Your task to perform on an android device: turn pop-ups off in chrome Image 0: 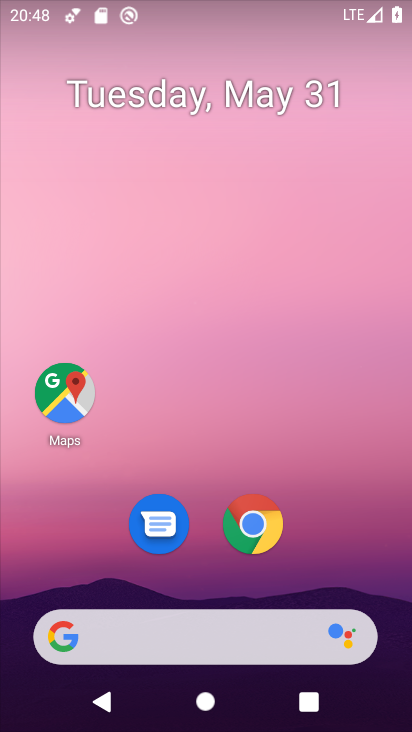
Step 0: click (263, 515)
Your task to perform on an android device: turn pop-ups off in chrome Image 1: 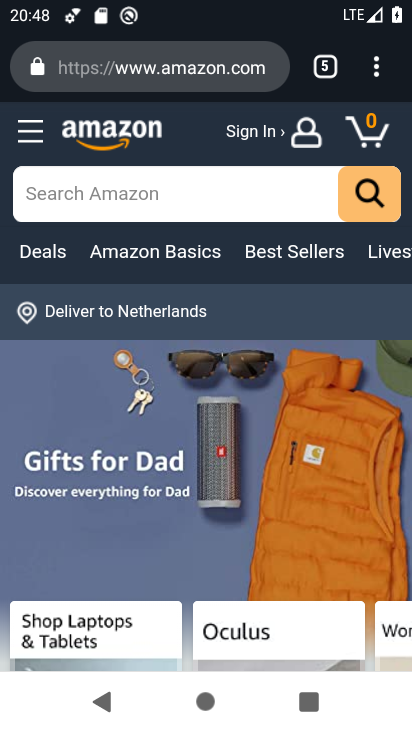
Step 1: click (373, 63)
Your task to perform on an android device: turn pop-ups off in chrome Image 2: 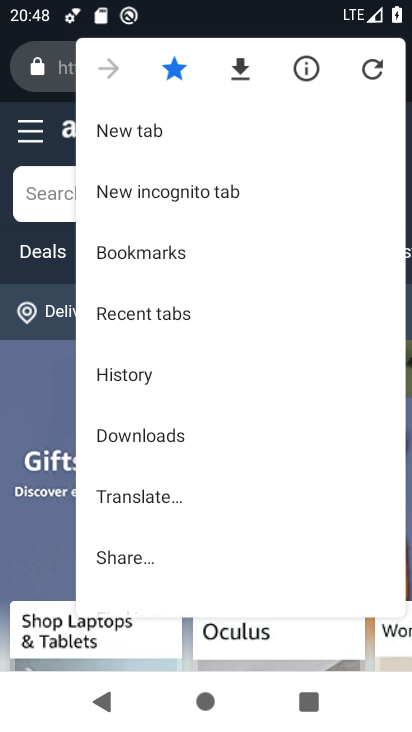
Step 2: drag from (234, 465) to (251, 113)
Your task to perform on an android device: turn pop-ups off in chrome Image 3: 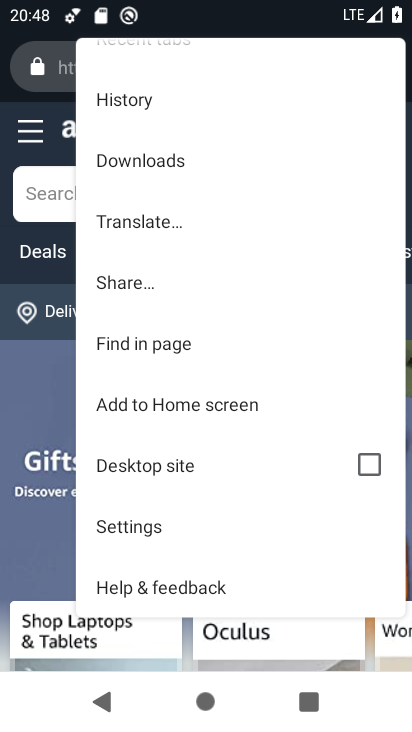
Step 3: click (185, 527)
Your task to perform on an android device: turn pop-ups off in chrome Image 4: 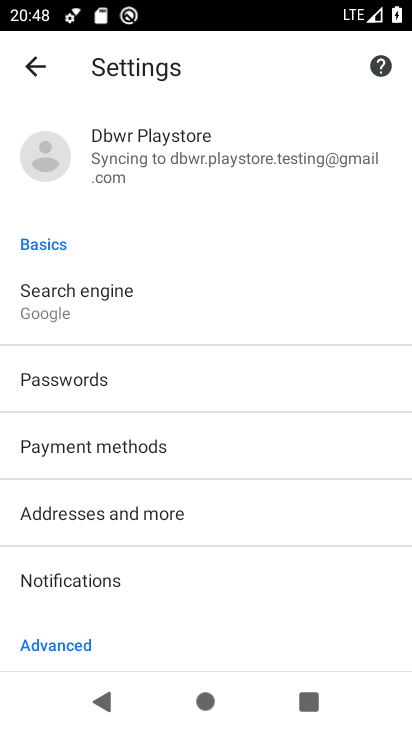
Step 4: drag from (267, 531) to (280, 161)
Your task to perform on an android device: turn pop-ups off in chrome Image 5: 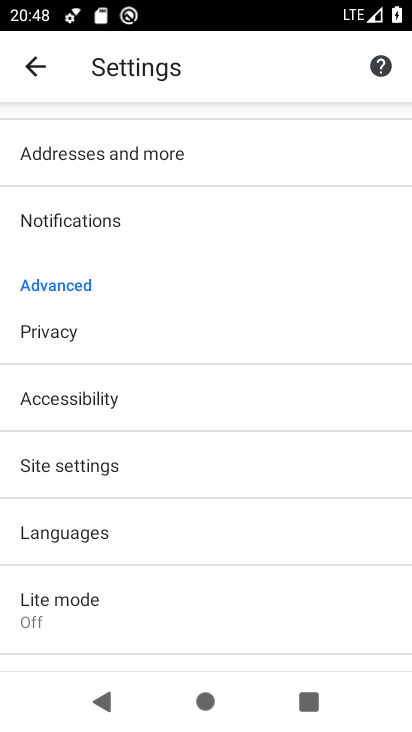
Step 5: click (208, 465)
Your task to perform on an android device: turn pop-ups off in chrome Image 6: 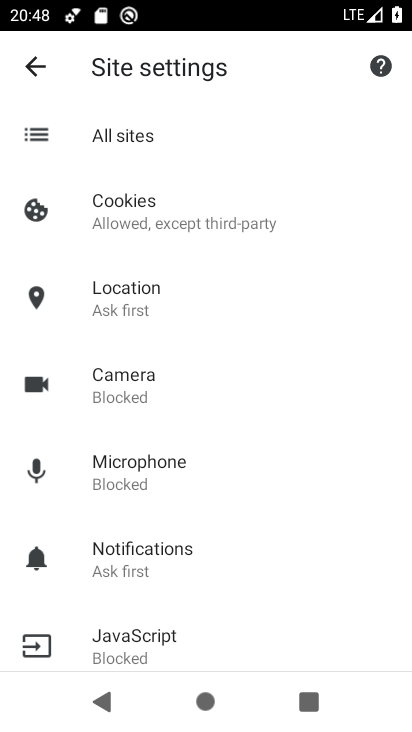
Step 6: drag from (248, 566) to (230, 251)
Your task to perform on an android device: turn pop-ups off in chrome Image 7: 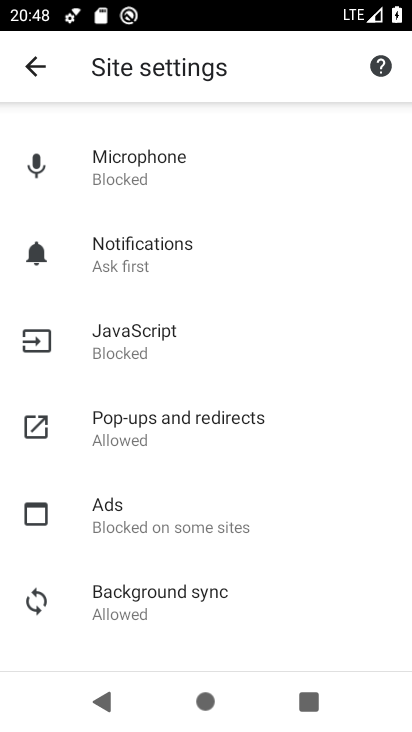
Step 7: click (203, 420)
Your task to perform on an android device: turn pop-ups off in chrome Image 8: 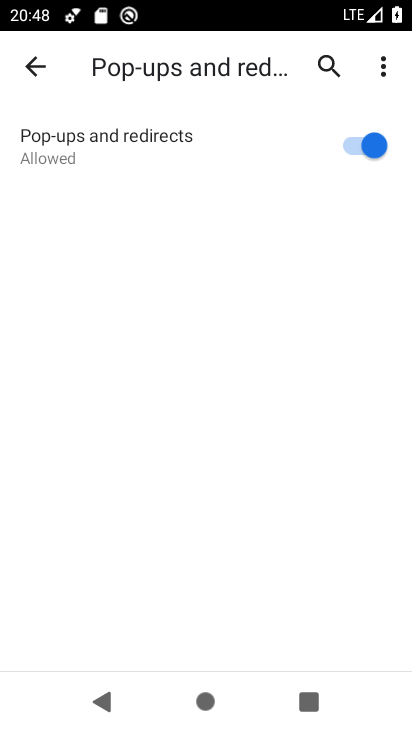
Step 8: click (362, 146)
Your task to perform on an android device: turn pop-ups off in chrome Image 9: 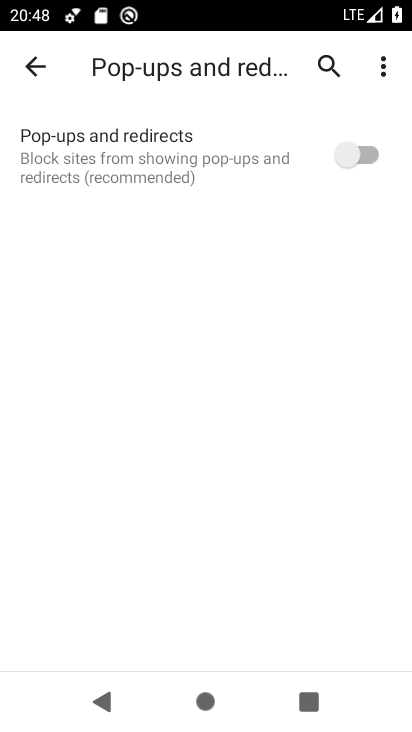
Step 9: task complete